Your task to perform on an android device: turn on airplane mode Image 0: 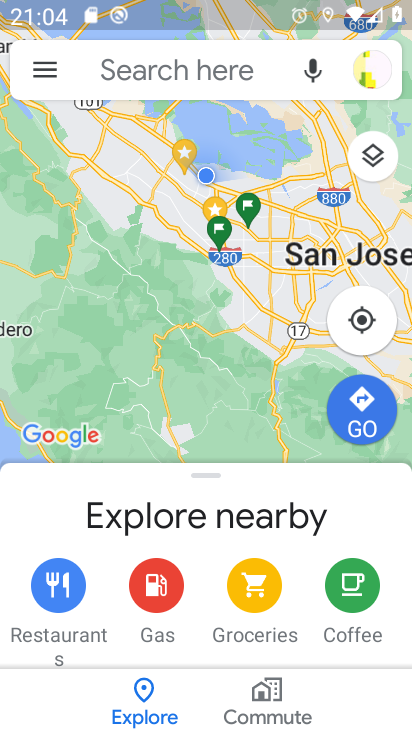
Step 0: press back button
Your task to perform on an android device: turn on airplane mode Image 1: 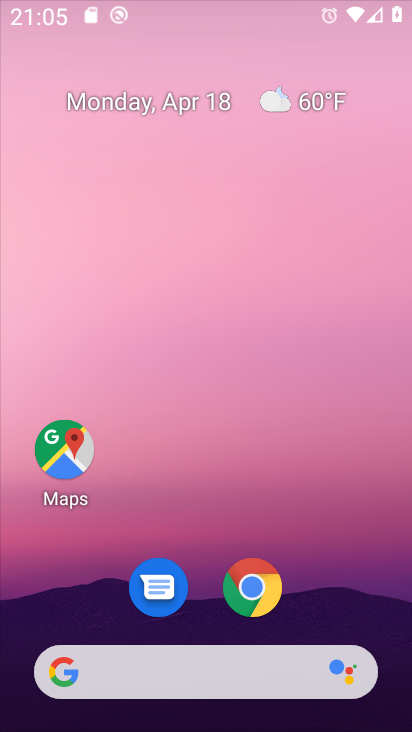
Step 1: press back button
Your task to perform on an android device: turn on airplane mode Image 2: 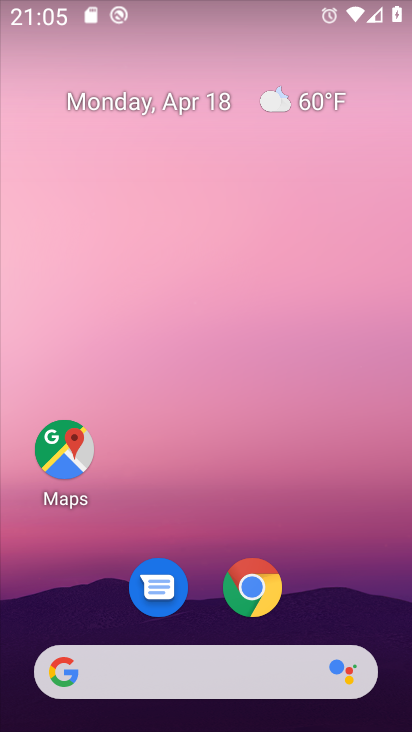
Step 2: drag from (333, 547) to (328, 12)
Your task to perform on an android device: turn on airplane mode Image 3: 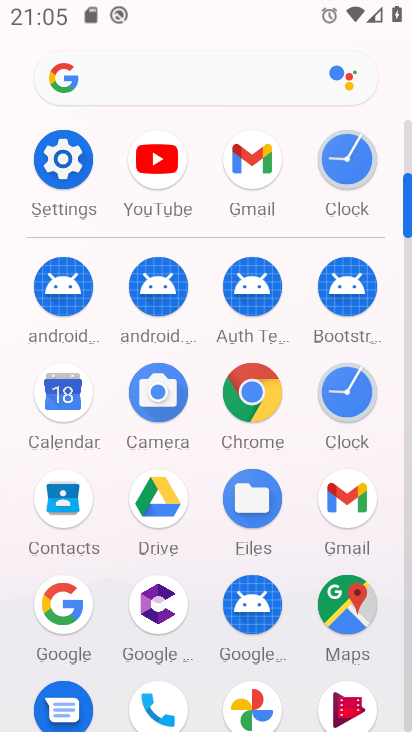
Step 3: click (70, 190)
Your task to perform on an android device: turn on airplane mode Image 4: 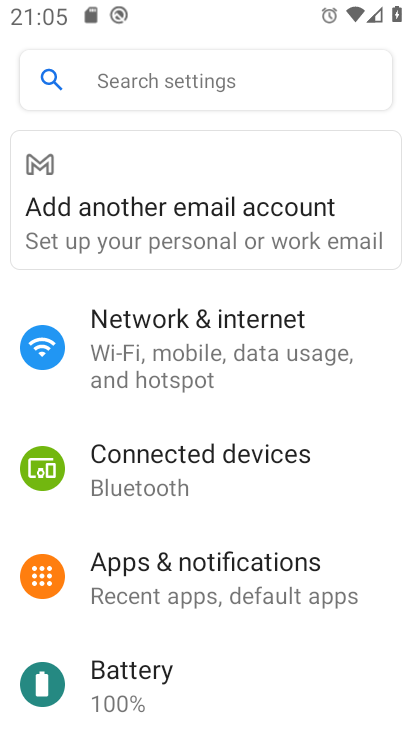
Step 4: click (189, 345)
Your task to perform on an android device: turn on airplane mode Image 5: 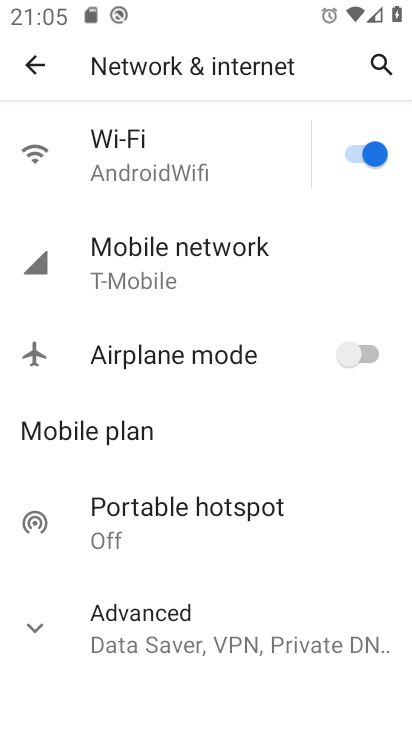
Step 5: click (237, 344)
Your task to perform on an android device: turn on airplane mode Image 6: 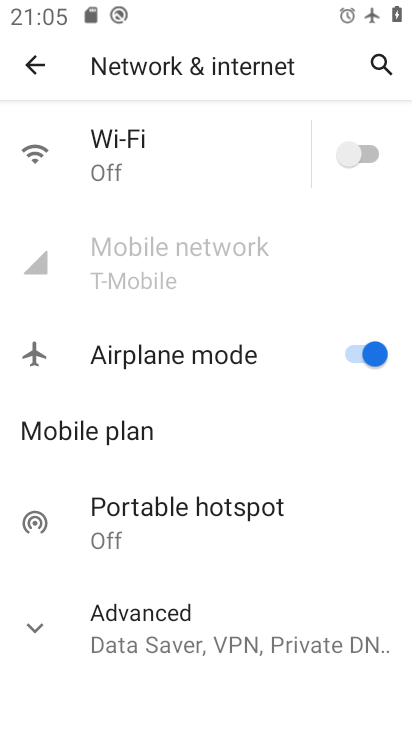
Step 6: task complete